Your task to perform on an android device: Go to privacy settings Image 0: 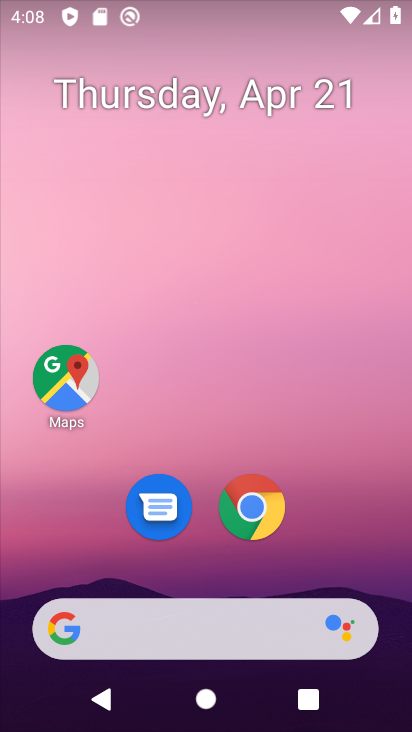
Step 0: click (266, 504)
Your task to perform on an android device: Go to privacy settings Image 1: 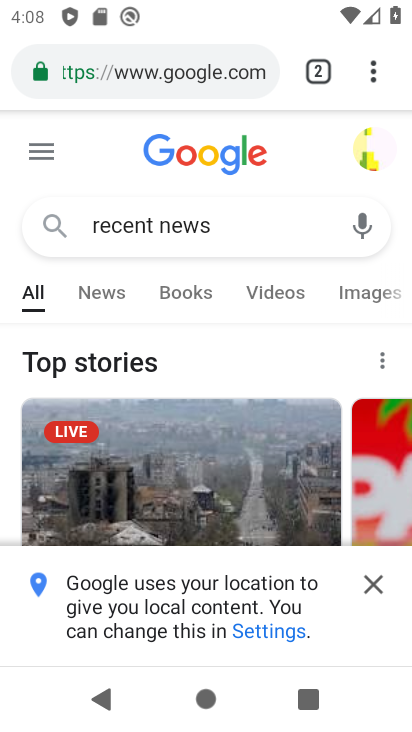
Step 1: click (385, 64)
Your task to perform on an android device: Go to privacy settings Image 2: 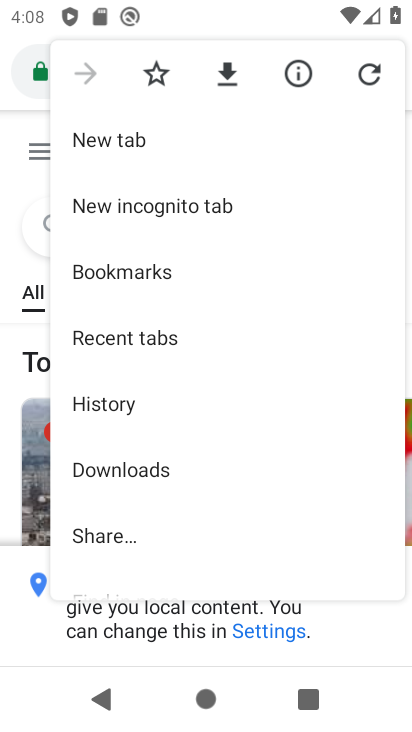
Step 2: drag from (241, 516) to (243, 161)
Your task to perform on an android device: Go to privacy settings Image 3: 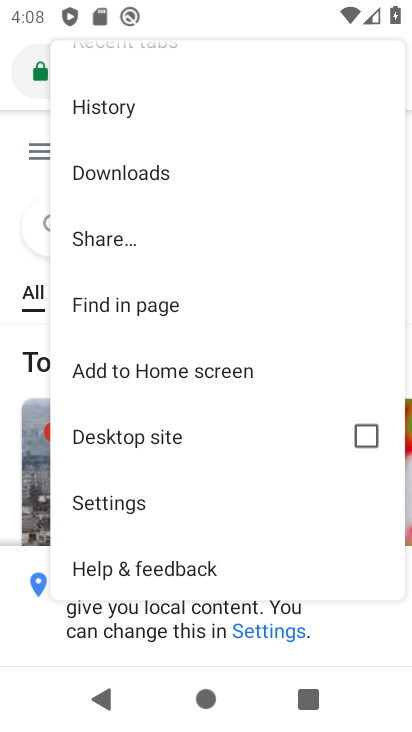
Step 3: click (236, 509)
Your task to perform on an android device: Go to privacy settings Image 4: 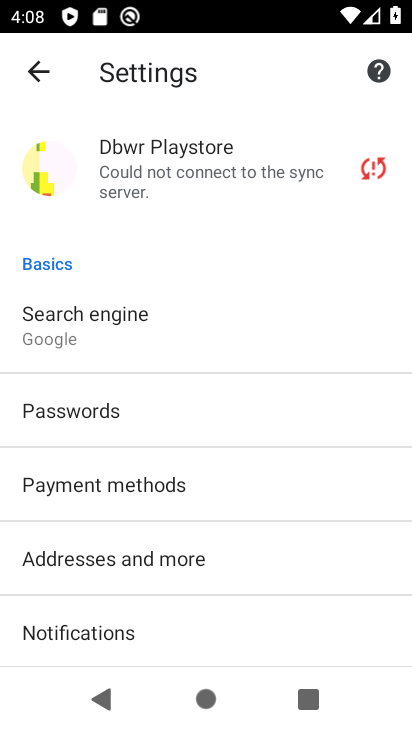
Step 4: drag from (251, 610) to (265, 260)
Your task to perform on an android device: Go to privacy settings Image 5: 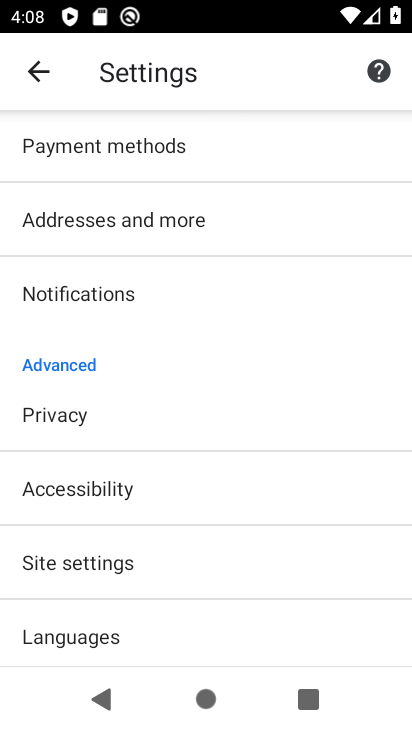
Step 5: click (252, 436)
Your task to perform on an android device: Go to privacy settings Image 6: 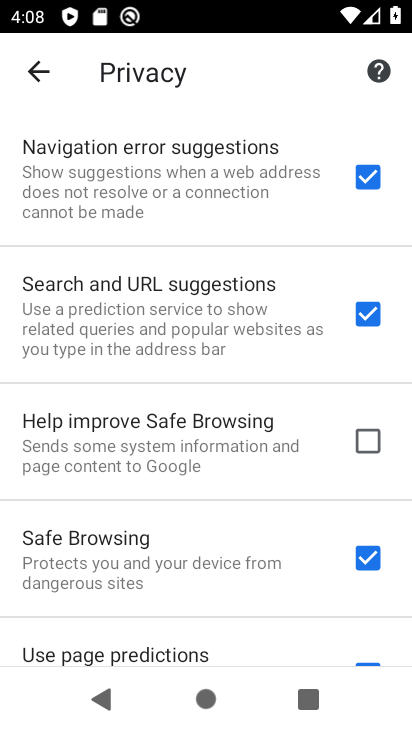
Step 6: task complete